Your task to perform on an android device: What is the news today? Image 0: 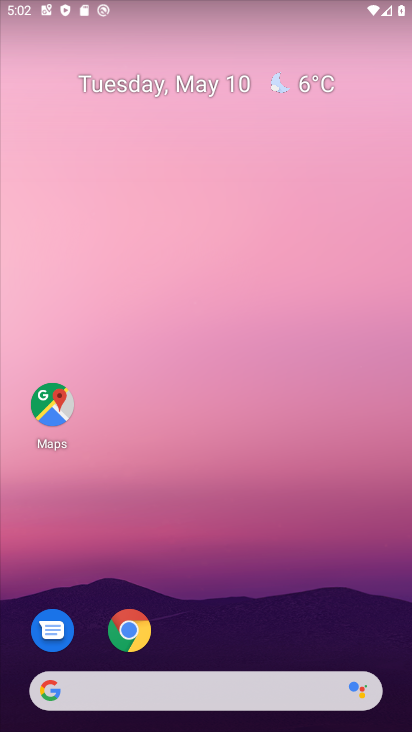
Step 0: drag from (258, 522) to (267, 212)
Your task to perform on an android device: What is the news today? Image 1: 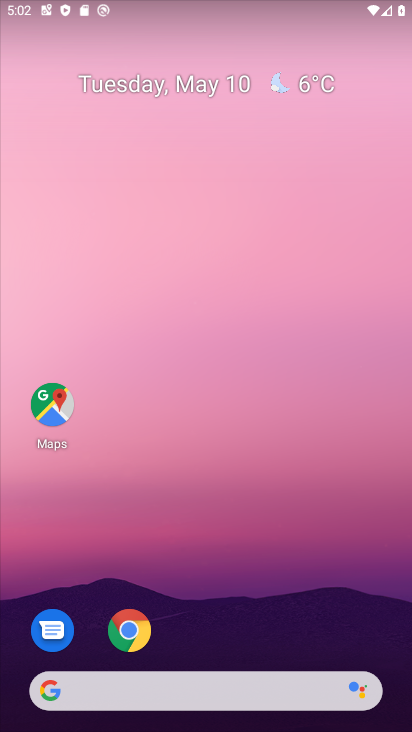
Step 1: drag from (343, 560) to (370, 146)
Your task to perform on an android device: What is the news today? Image 2: 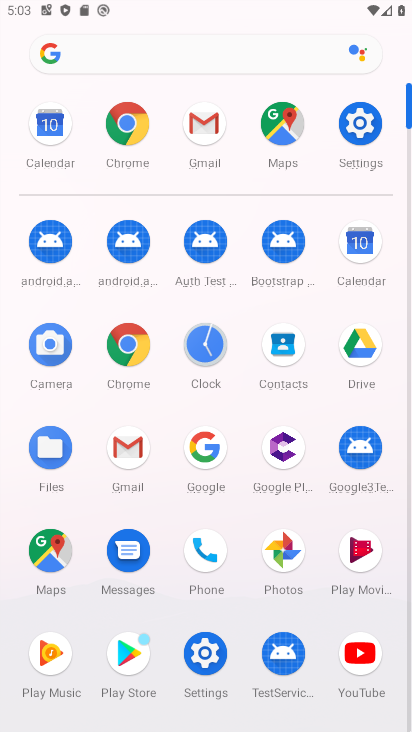
Step 2: click (135, 126)
Your task to perform on an android device: What is the news today? Image 3: 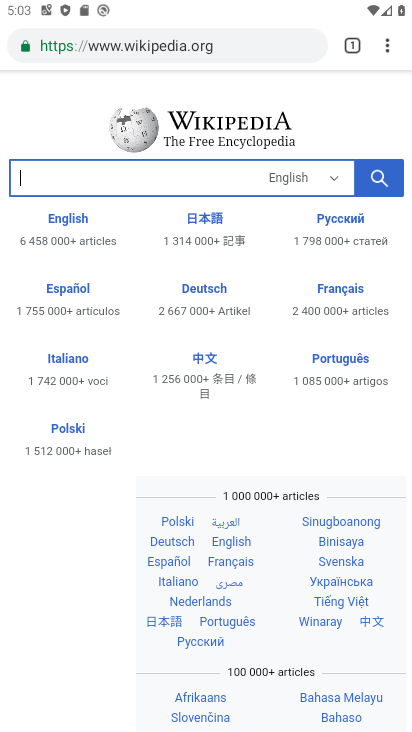
Step 3: click (209, 34)
Your task to perform on an android device: What is the news today? Image 4: 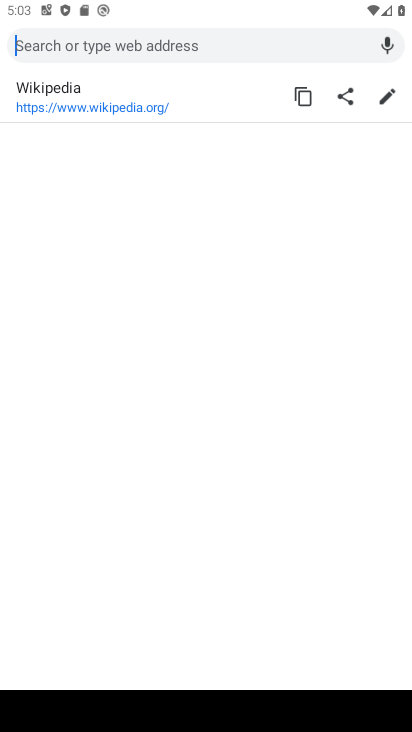
Step 4: type "news"
Your task to perform on an android device: What is the news today? Image 5: 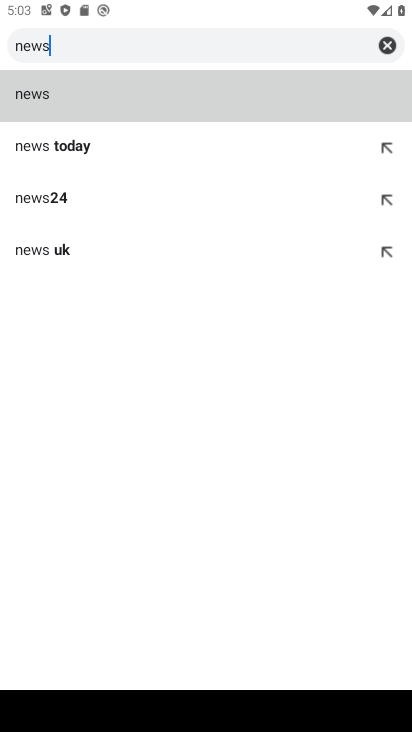
Step 5: click (35, 100)
Your task to perform on an android device: What is the news today? Image 6: 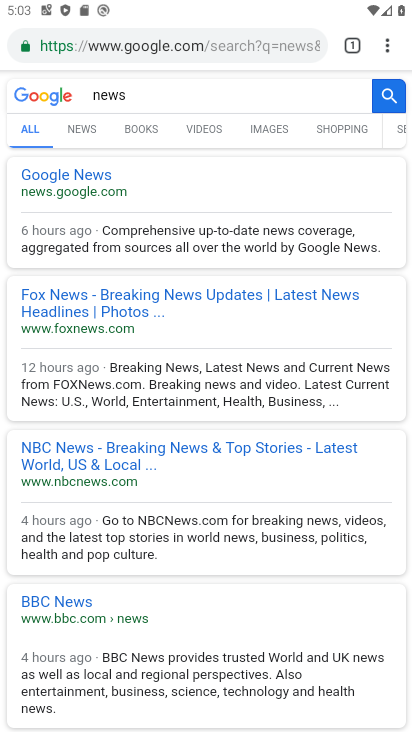
Step 6: click (83, 173)
Your task to perform on an android device: What is the news today? Image 7: 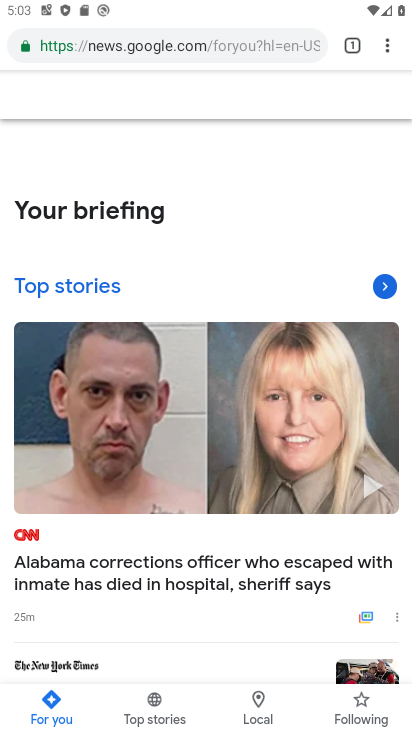
Step 7: task complete